Your task to perform on an android device: open a bookmark in the chrome app Image 0: 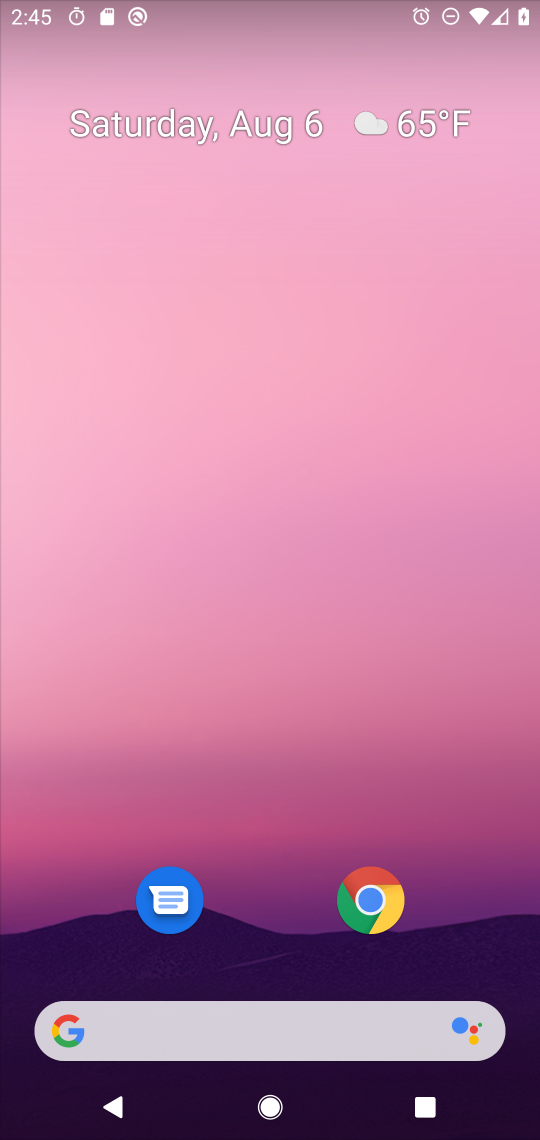
Step 0: drag from (266, 956) to (265, 164)
Your task to perform on an android device: open a bookmark in the chrome app Image 1: 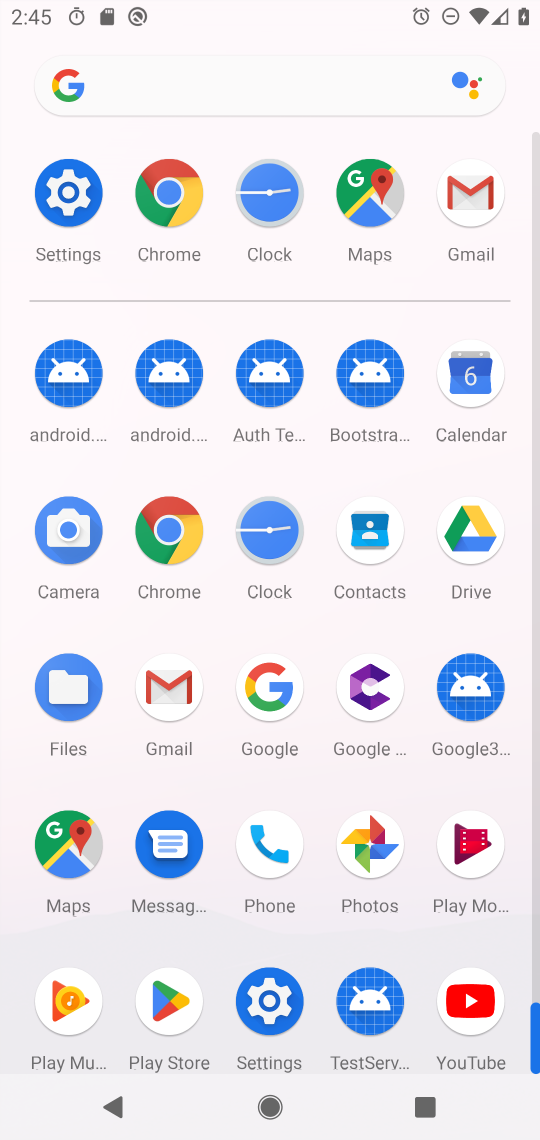
Step 1: click (161, 531)
Your task to perform on an android device: open a bookmark in the chrome app Image 2: 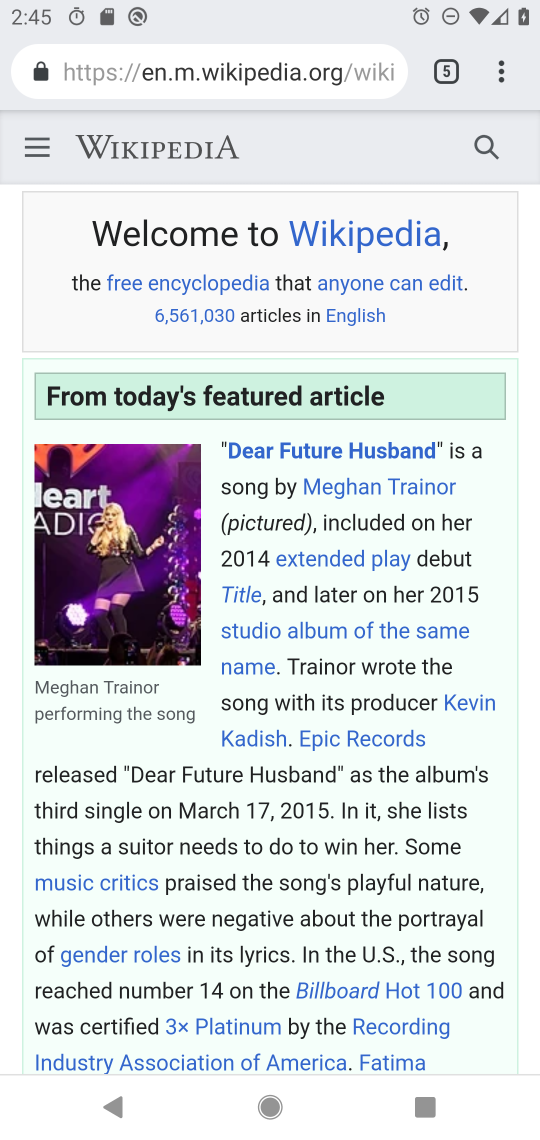
Step 2: click (502, 79)
Your task to perform on an android device: open a bookmark in the chrome app Image 3: 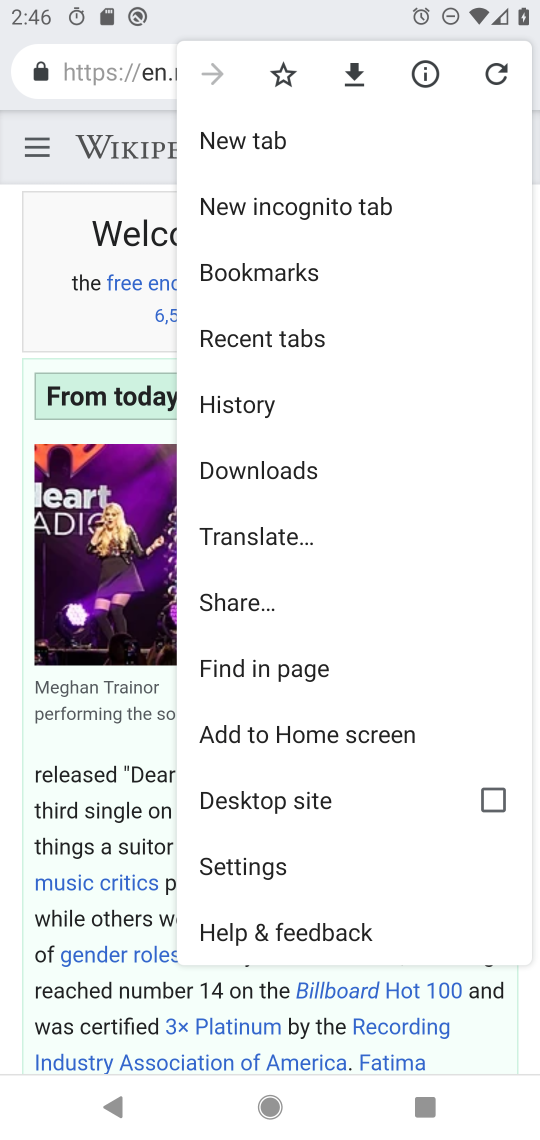
Step 3: click (274, 266)
Your task to perform on an android device: open a bookmark in the chrome app Image 4: 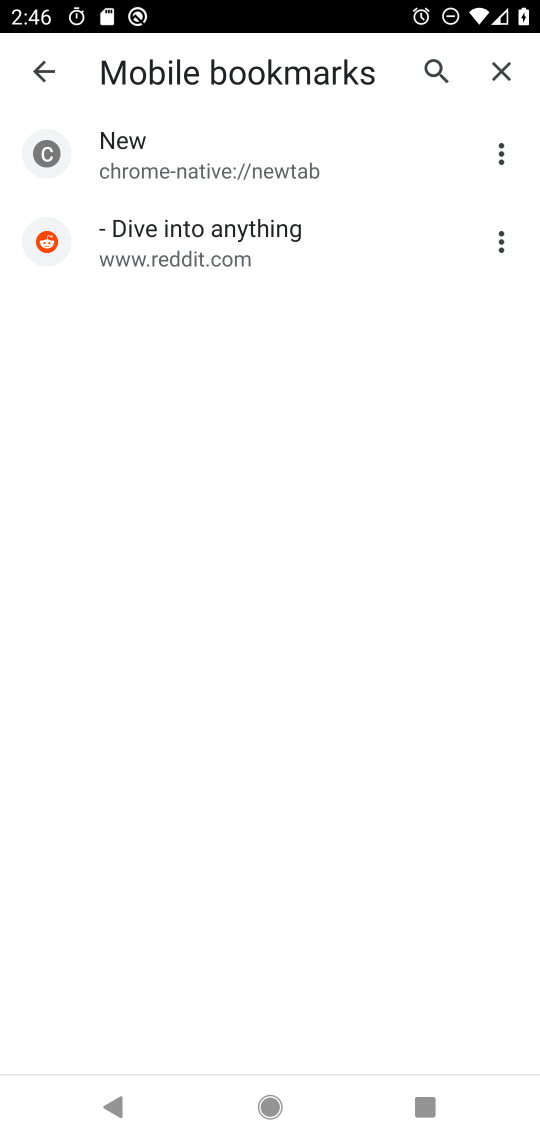
Step 4: click (195, 237)
Your task to perform on an android device: open a bookmark in the chrome app Image 5: 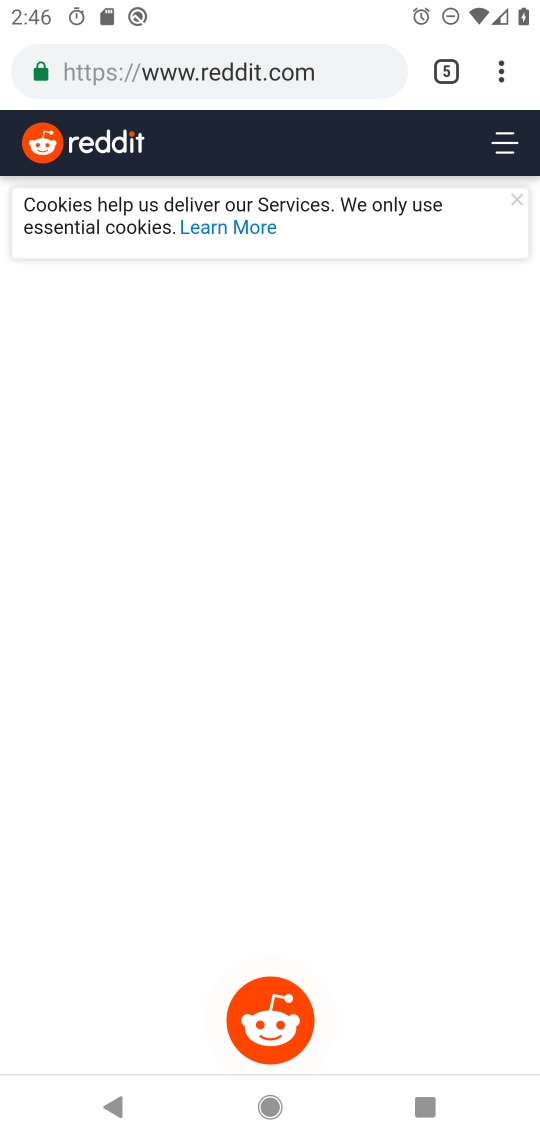
Step 5: task complete